Your task to perform on an android device: Open settings on Google Maps Image 0: 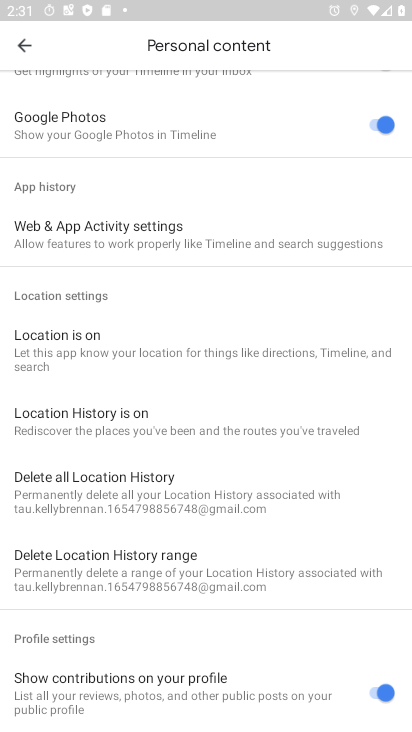
Step 0: press home button
Your task to perform on an android device: Open settings on Google Maps Image 1: 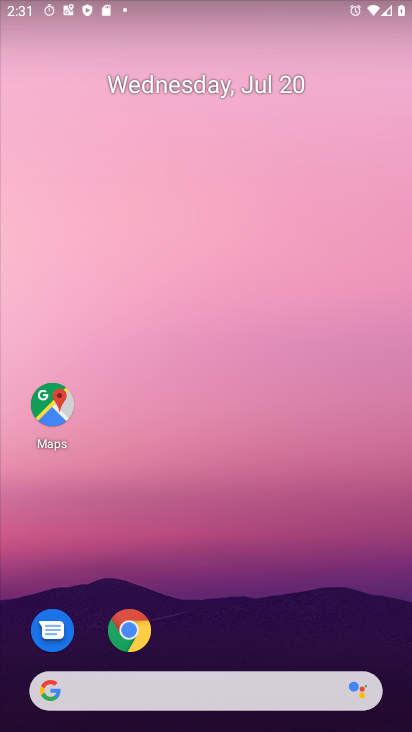
Step 1: click (47, 402)
Your task to perform on an android device: Open settings on Google Maps Image 2: 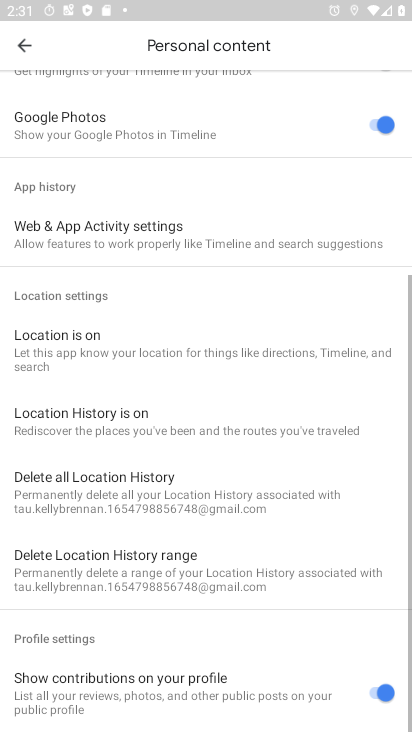
Step 2: task complete